Your task to perform on an android device: turn on improve location accuracy Image 0: 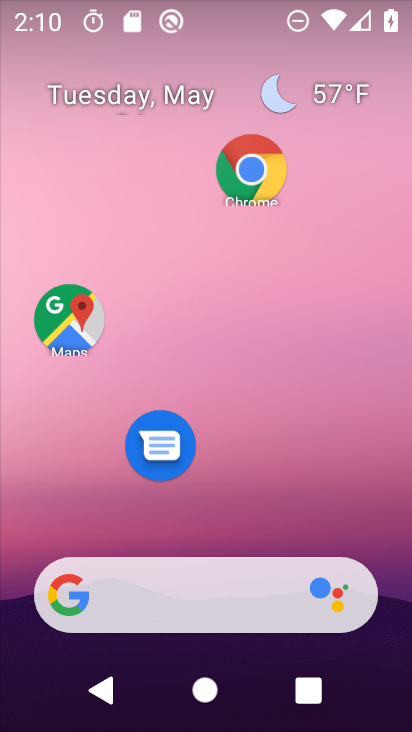
Step 0: drag from (225, 715) to (261, 182)
Your task to perform on an android device: turn on improve location accuracy Image 1: 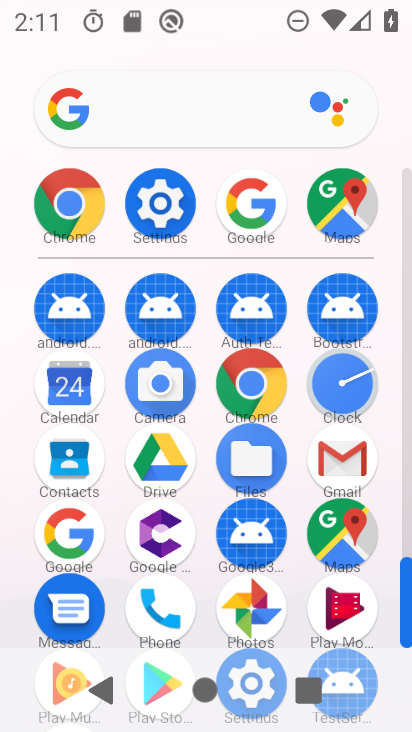
Step 1: click (163, 208)
Your task to perform on an android device: turn on improve location accuracy Image 2: 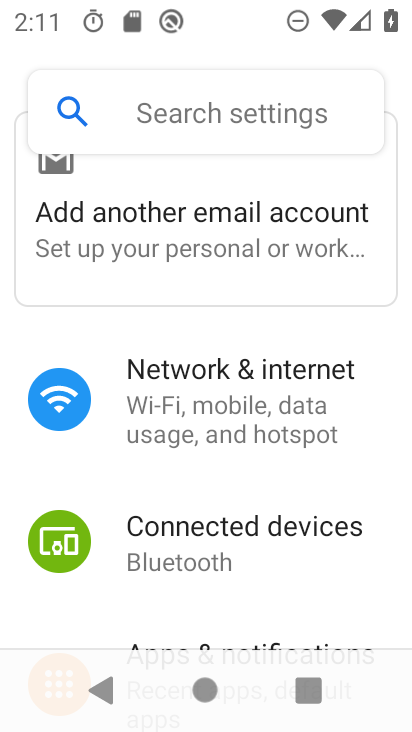
Step 2: drag from (216, 614) to (243, 285)
Your task to perform on an android device: turn on improve location accuracy Image 3: 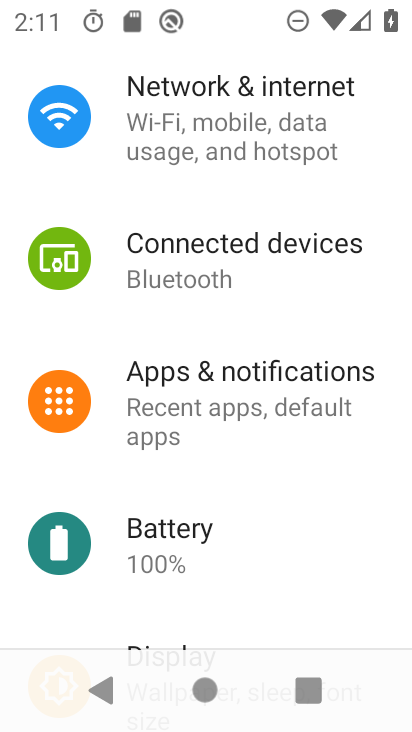
Step 3: drag from (232, 604) to (248, 319)
Your task to perform on an android device: turn on improve location accuracy Image 4: 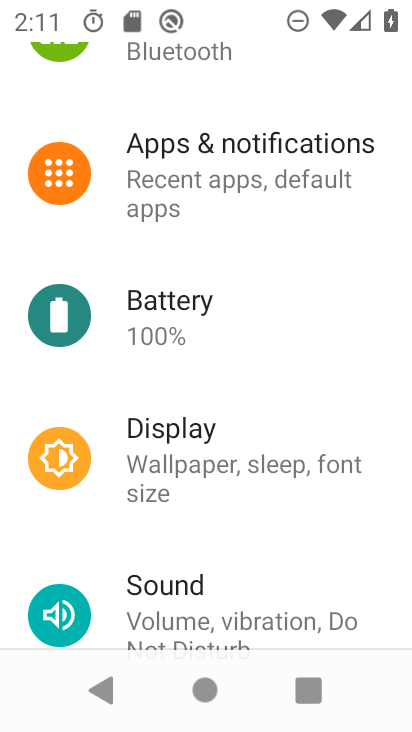
Step 4: drag from (247, 612) to (250, 286)
Your task to perform on an android device: turn on improve location accuracy Image 5: 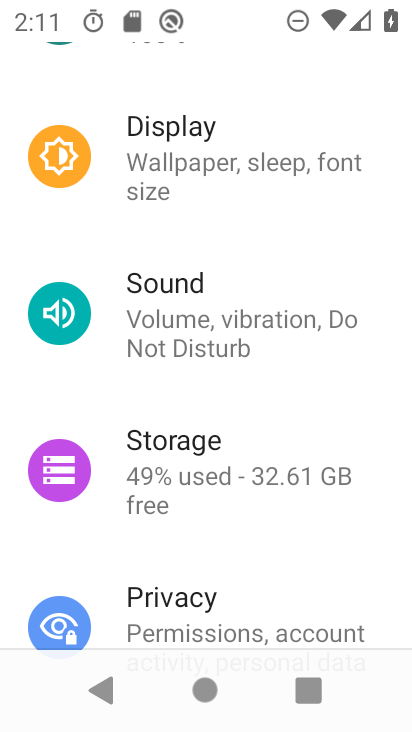
Step 5: drag from (220, 587) to (231, 195)
Your task to perform on an android device: turn on improve location accuracy Image 6: 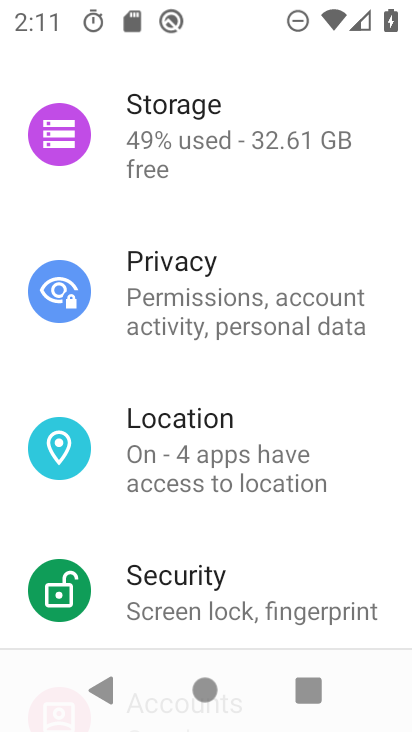
Step 6: click (199, 447)
Your task to perform on an android device: turn on improve location accuracy Image 7: 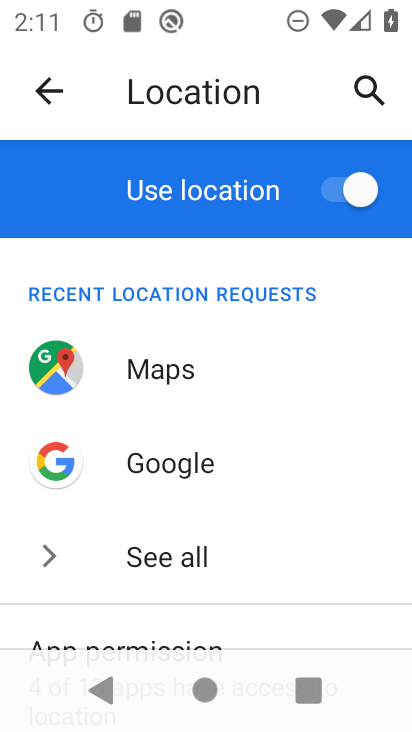
Step 7: drag from (147, 595) to (174, 169)
Your task to perform on an android device: turn on improve location accuracy Image 8: 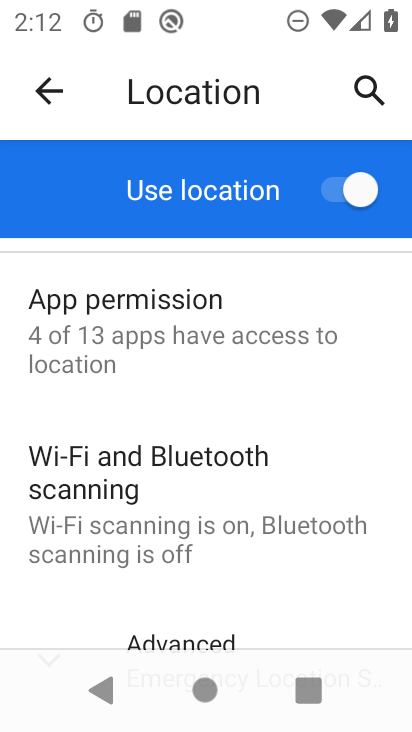
Step 8: drag from (206, 528) to (190, 305)
Your task to perform on an android device: turn on improve location accuracy Image 9: 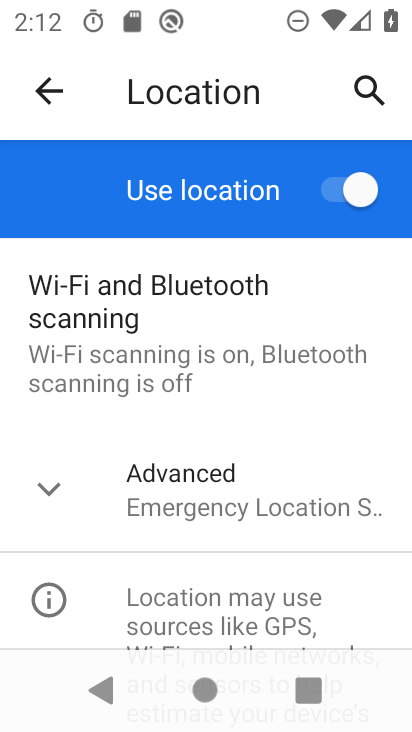
Step 9: click (180, 494)
Your task to perform on an android device: turn on improve location accuracy Image 10: 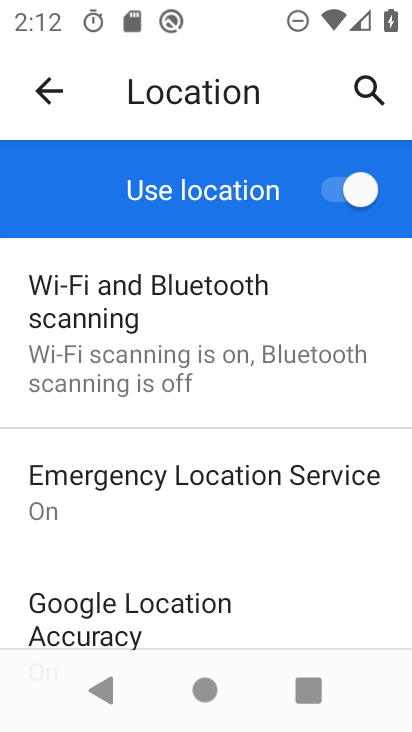
Step 10: click (158, 608)
Your task to perform on an android device: turn on improve location accuracy Image 11: 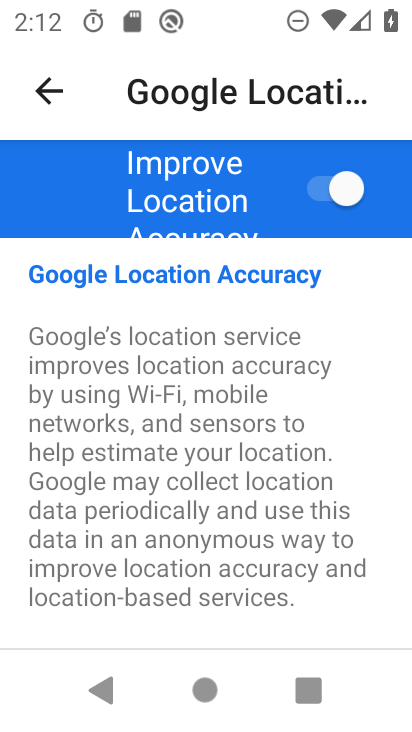
Step 11: task complete